Your task to perform on an android device: Open accessibility settings Image 0: 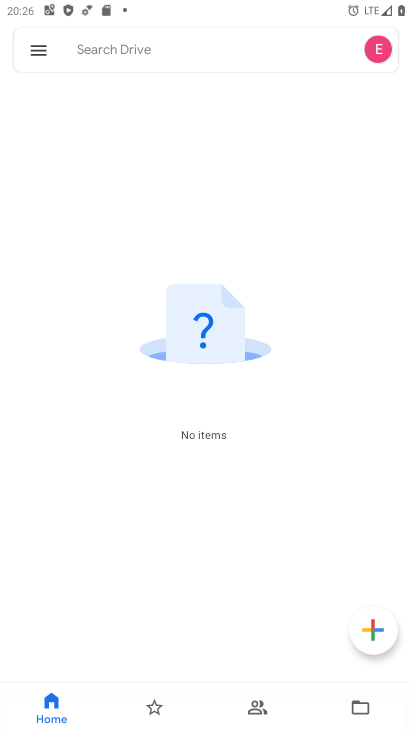
Step 0: press home button
Your task to perform on an android device: Open accessibility settings Image 1: 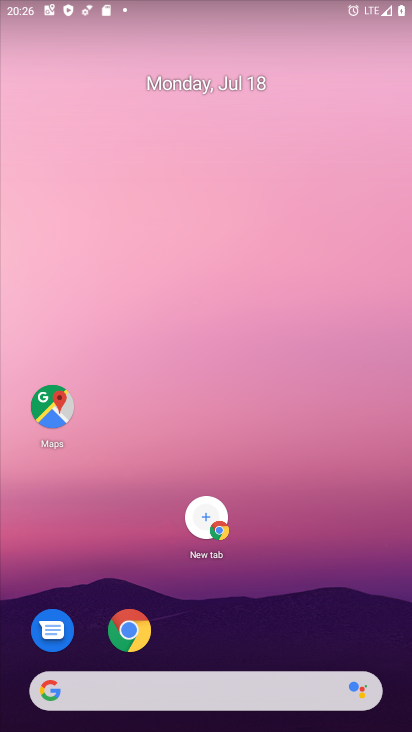
Step 1: drag from (168, 690) to (246, 487)
Your task to perform on an android device: Open accessibility settings Image 2: 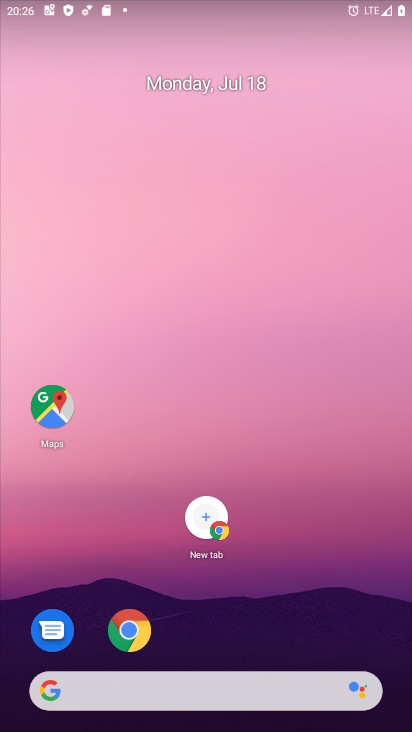
Step 2: drag from (172, 649) to (317, 171)
Your task to perform on an android device: Open accessibility settings Image 3: 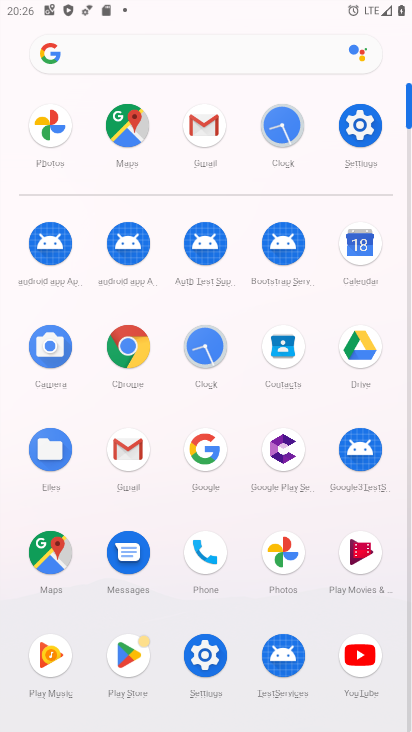
Step 3: click (362, 132)
Your task to perform on an android device: Open accessibility settings Image 4: 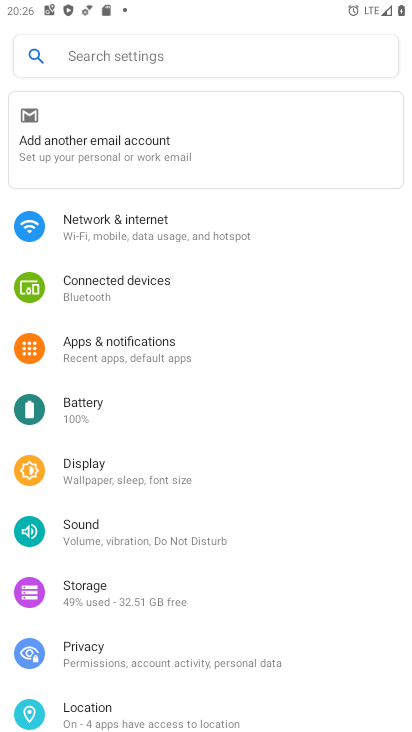
Step 4: drag from (109, 687) to (212, 335)
Your task to perform on an android device: Open accessibility settings Image 5: 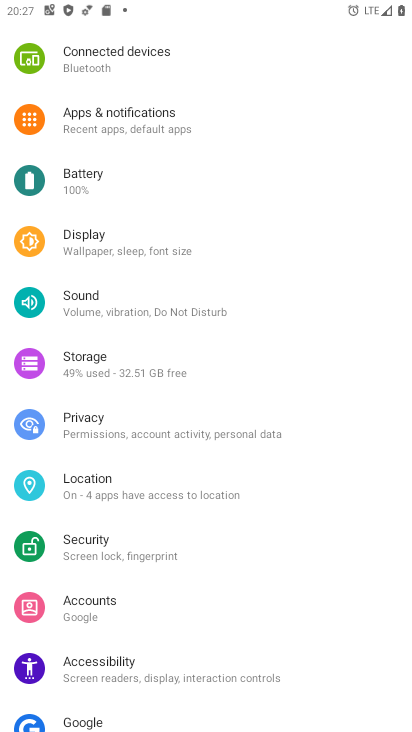
Step 5: click (127, 679)
Your task to perform on an android device: Open accessibility settings Image 6: 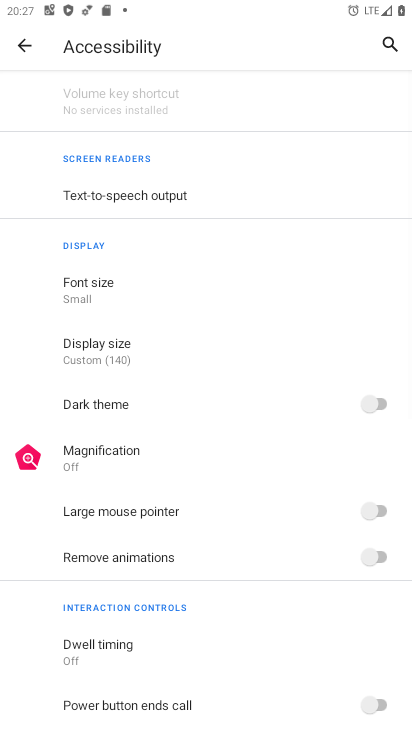
Step 6: task complete